Your task to perform on an android device: Open Google Maps Image 0: 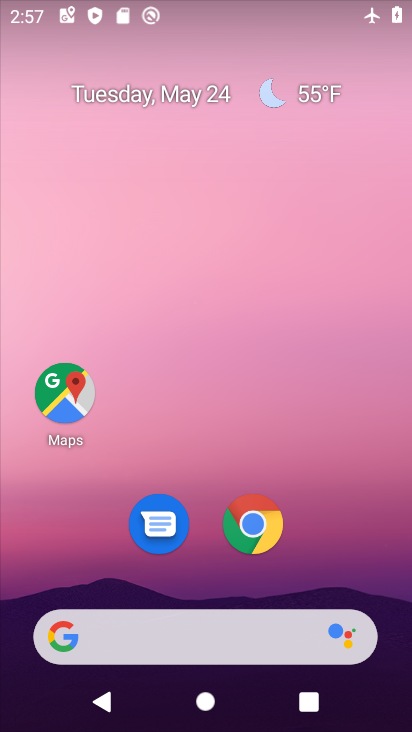
Step 0: click (49, 394)
Your task to perform on an android device: Open Google Maps Image 1: 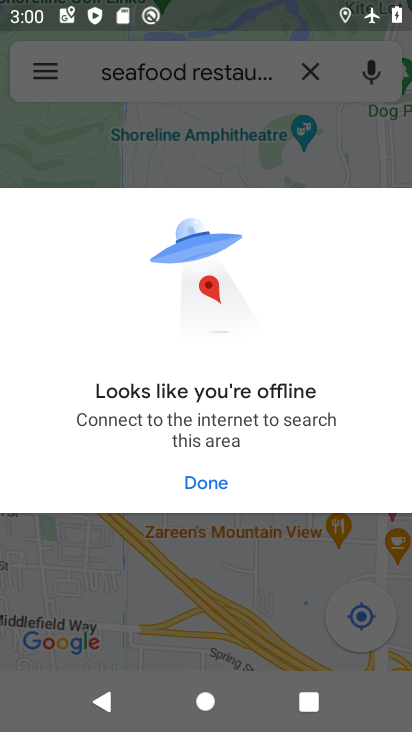
Step 1: task complete